Your task to perform on an android device: Go to privacy settings Image 0: 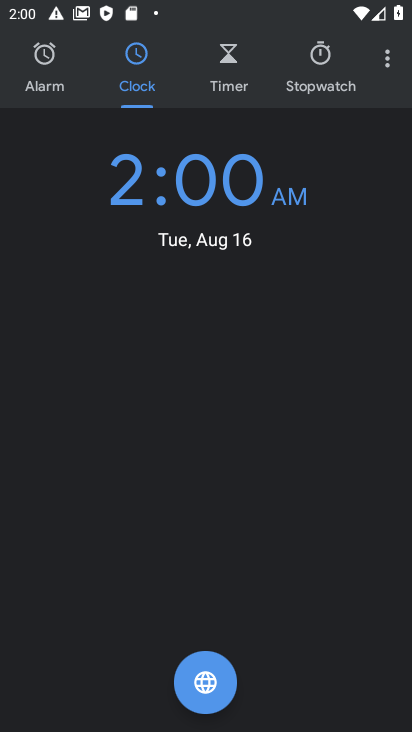
Step 0: press home button
Your task to perform on an android device: Go to privacy settings Image 1: 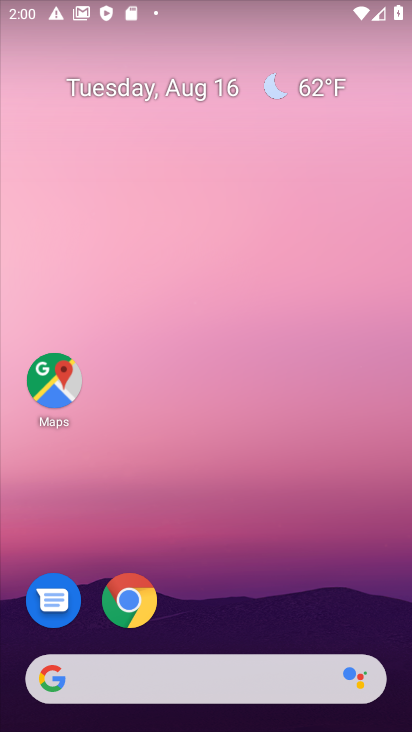
Step 1: drag from (243, 656) to (244, 176)
Your task to perform on an android device: Go to privacy settings Image 2: 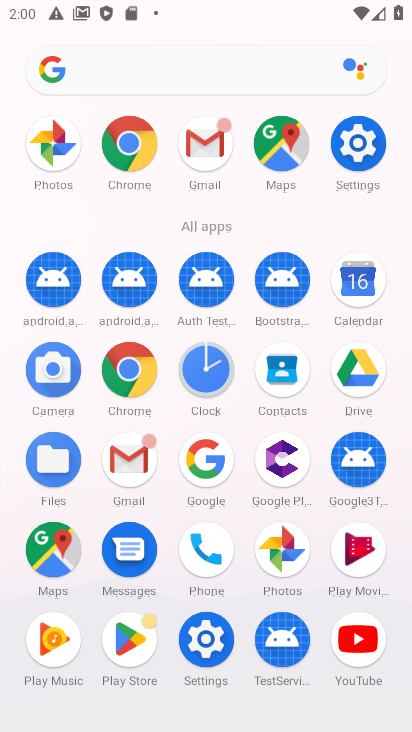
Step 2: click (353, 149)
Your task to perform on an android device: Go to privacy settings Image 3: 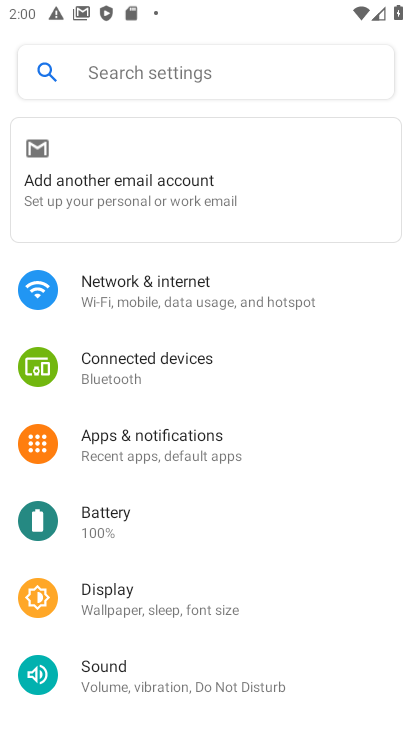
Step 3: drag from (112, 661) to (83, 95)
Your task to perform on an android device: Go to privacy settings Image 4: 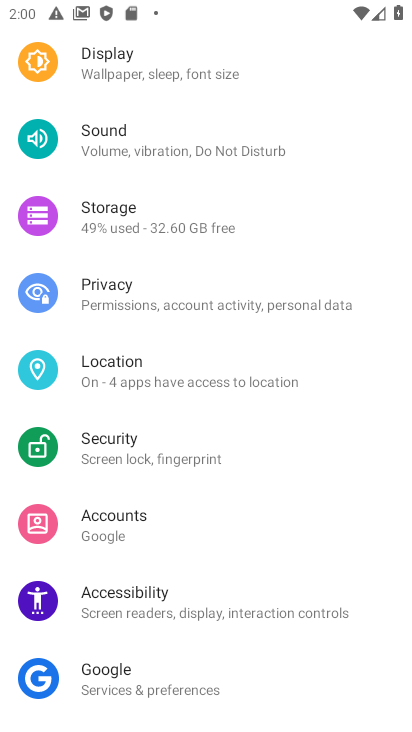
Step 4: click (119, 290)
Your task to perform on an android device: Go to privacy settings Image 5: 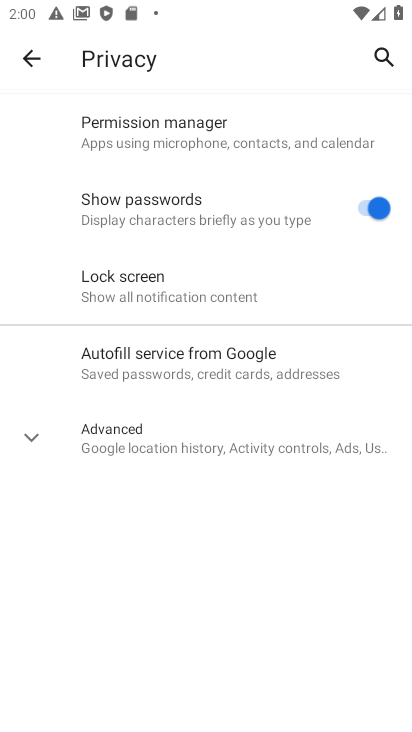
Step 5: task complete